Your task to perform on an android device: Open Wikipedia Image 0: 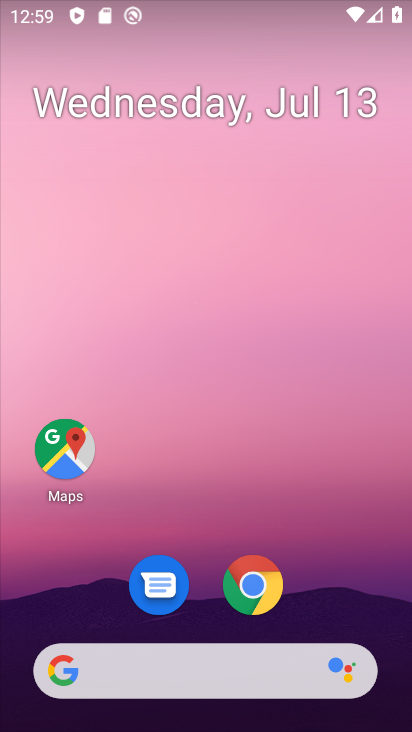
Step 0: click (243, 582)
Your task to perform on an android device: Open Wikipedia Image 1: 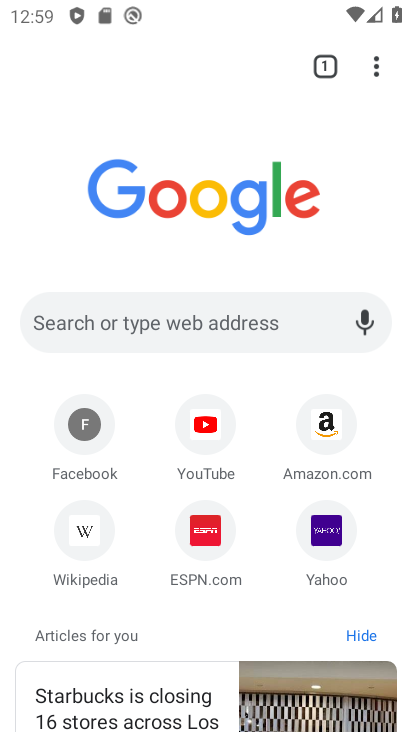
Step 1: click (93, 527)
Your task to perform on an android device: Open Wikipedia Image 2: 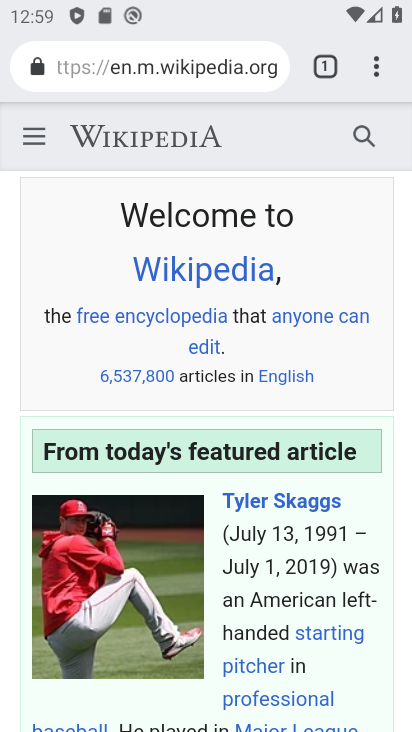
Step 2: task complete